Your task to perform on an android device: add a contact Image 0: 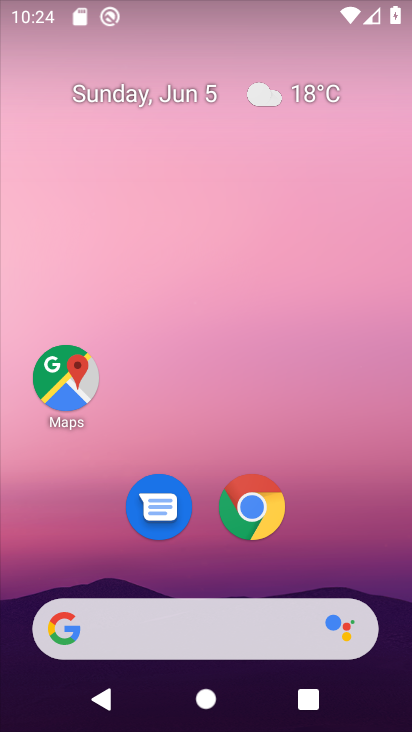
Step 0: drag from (221, 569) to (244, 183)
Your task to perform on an android device: add a contact Image 1: 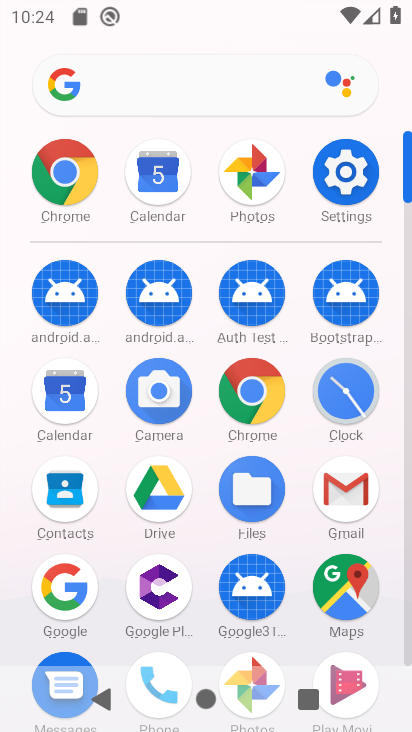
Step 1: click (76, 494)
Your task to perform on an android device: add a contact Image 2: 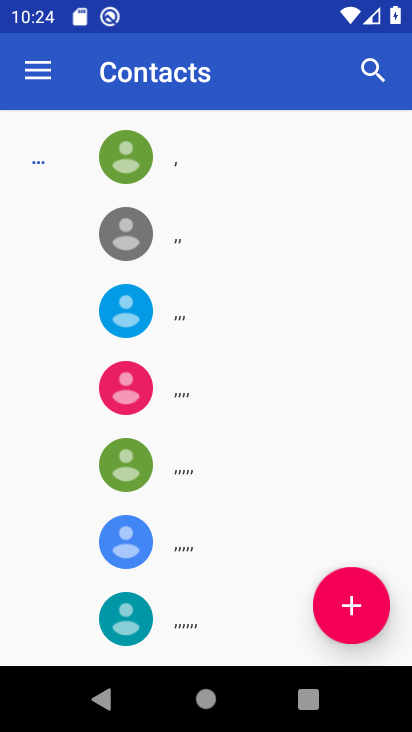
Step 2: click (357, 606)
Your task to perform on an android device: add a contact Image 3: 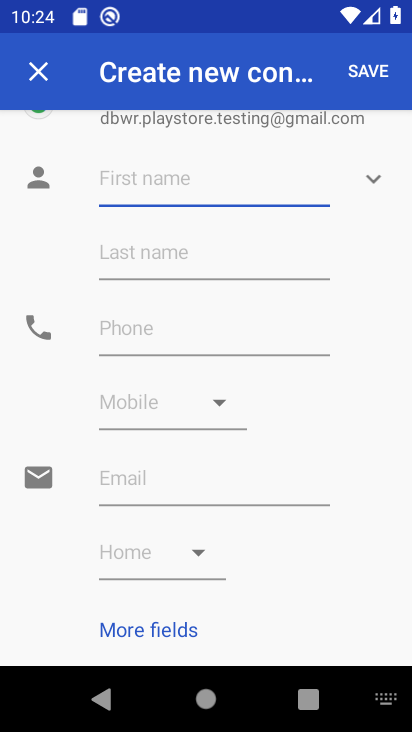
Step 3: type "clent"
Your task to perform on an android device: add a contact Image 4: 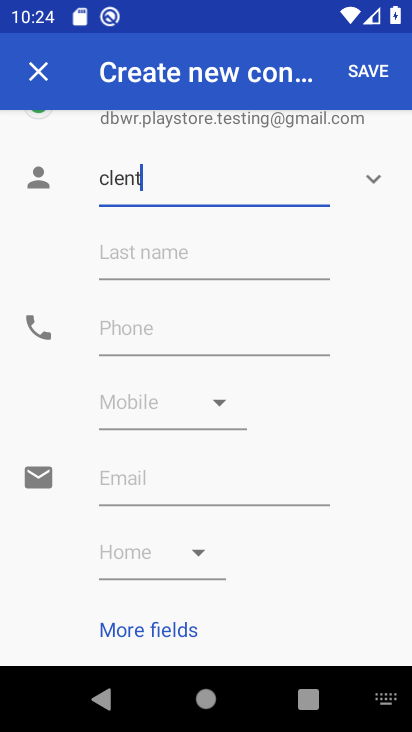
Step 4: click (367, 69)
Your task to perform on an android device: add a contact Image 5: 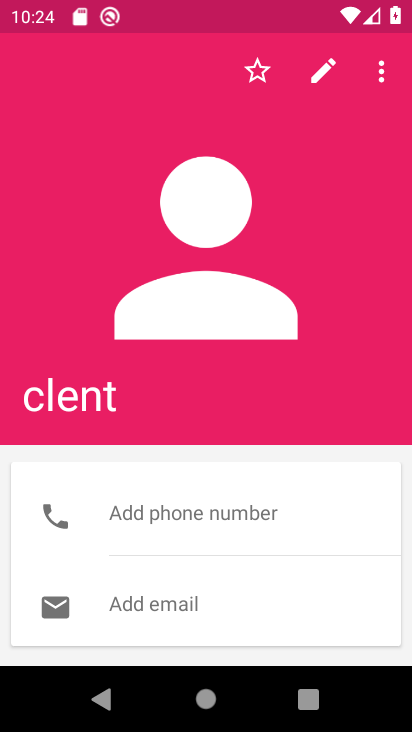
Step 5: task complete